Your task to perform on an android device: check battery use Image 0: 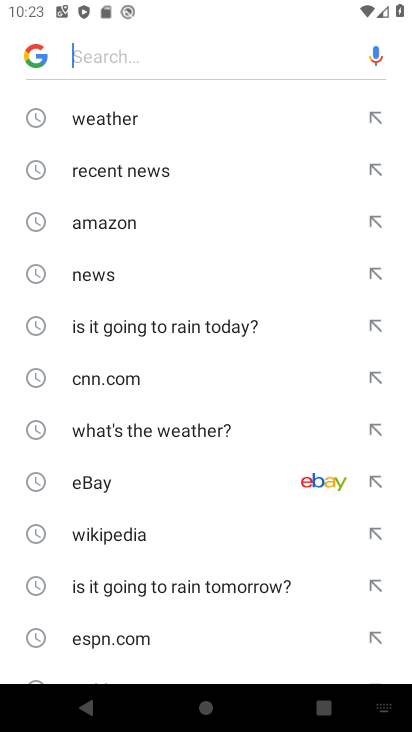
Step 0: press home button
Your task to perform on an android device: check battery use Image 1: 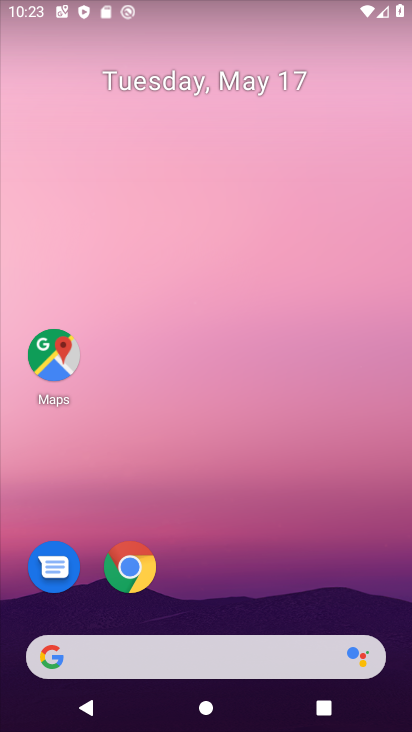
Step 1: drag from (266, 605) to (377, 79)
Your task to perform on an android device: check battery use Image 2: 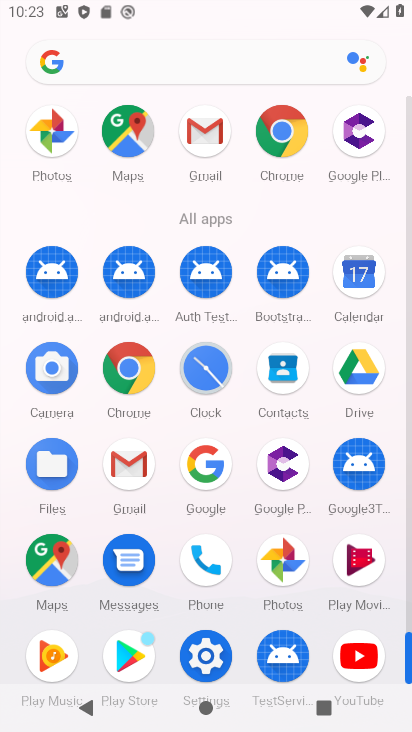
Step 2: click (197, 651)
Your task to perform on an android device: check battery use Image 3: 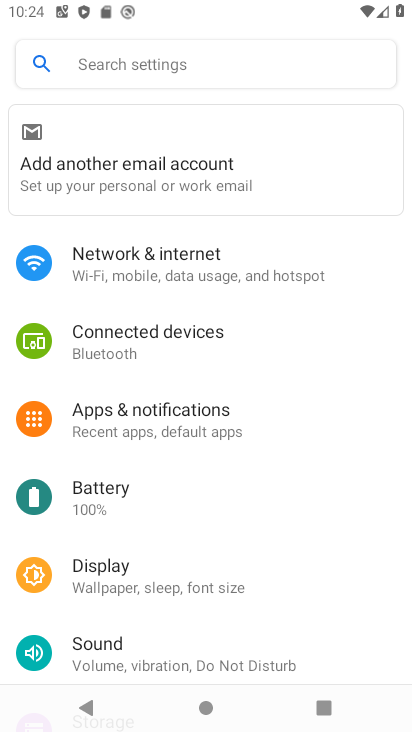
Step 3: click (107, 509)
Your task to perform on an android device: check battery use Image 4: 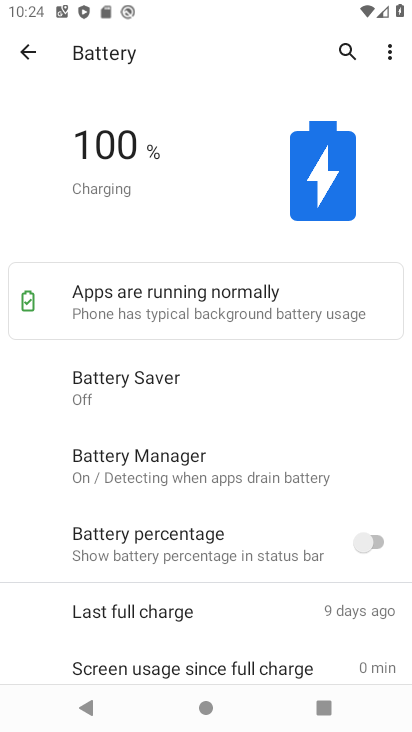
Step 4: click (394, 52)
Your task to perform on an android device: check battery use Image 5: 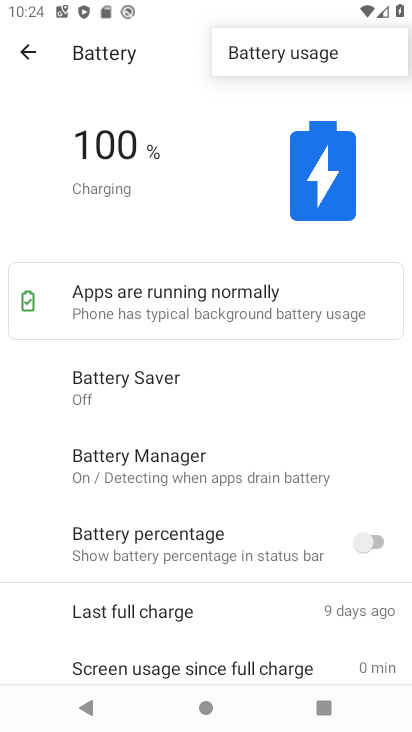
Step 5: click (316, 51)
Your task to perform on an android device: check battery use Image 6: 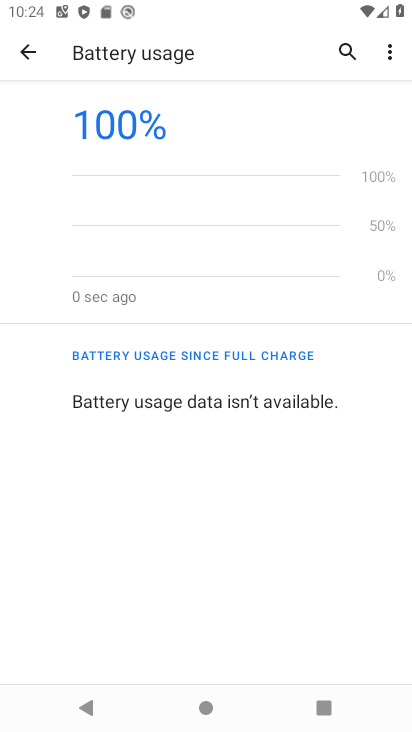
Step 6: task complete